Your task to perform on an android device: turn smart compose on in the gmail app Image 0: 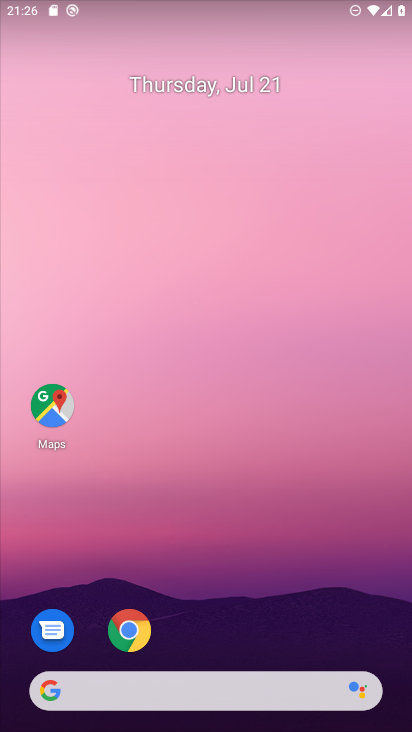
Step 0: drag from (309, 634) to (227, 164)
Your task to perform on an android device: turn smart compose on in the gmail app Image 1: 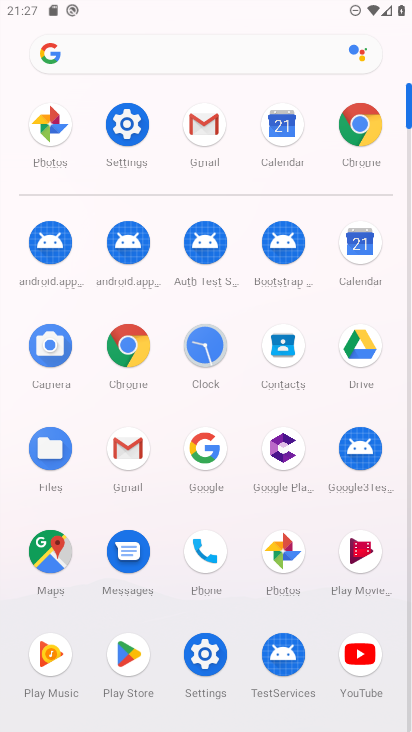
Step 1: click (220, 117)
Your task to perform on an android device: turn smart compose on in the gmail app Image 2: 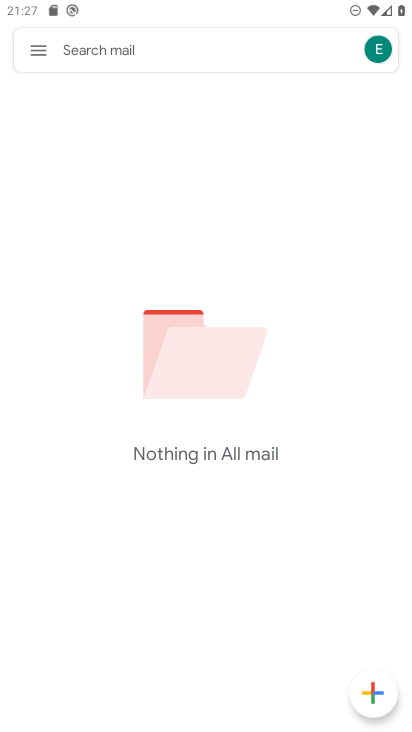
Step 2: click (38, 54)
Your task to perform on an android device: turn smart compose on in the gmail app Image 3: 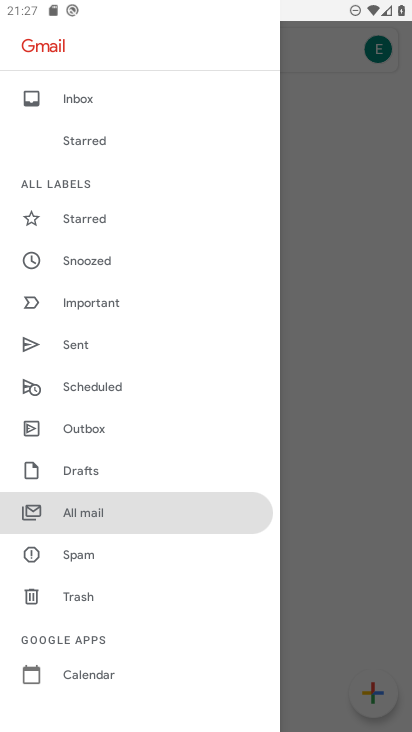
Step 3: drag from (76, 651) to (124, 233)
Your task to perform on an android device: turn smart compose on in the gmail app Image 4: 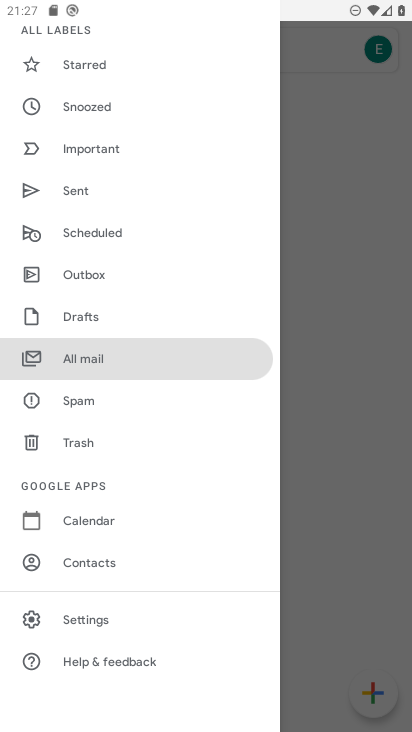
Step 4: click (70, 622)
Your task to perform on an android device: turn smart compose on in the gmail app Image 5: 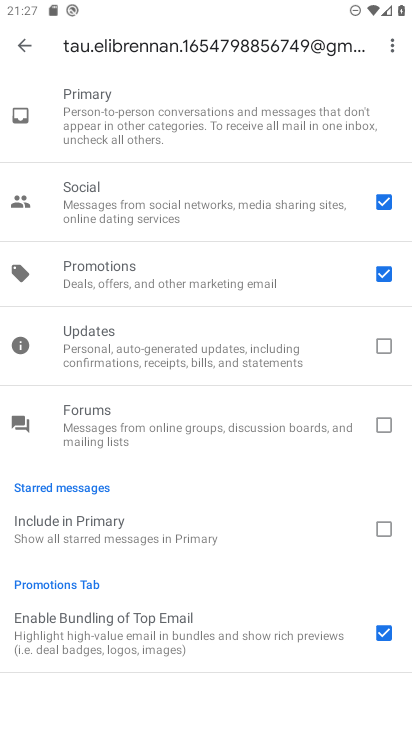
Step 5: click (27, 41)
Your task to perform on an android device: turn smart compose on in the gmail app Image 6: 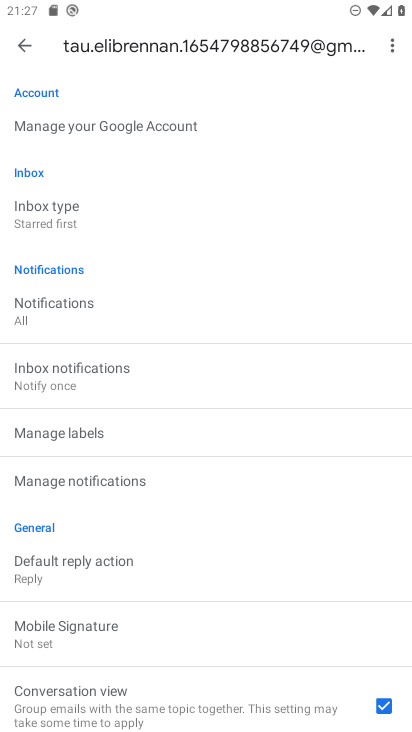
Step 6: task complete